Your task to perform on an android device: turn smart compose on in the gmail app Image 0: 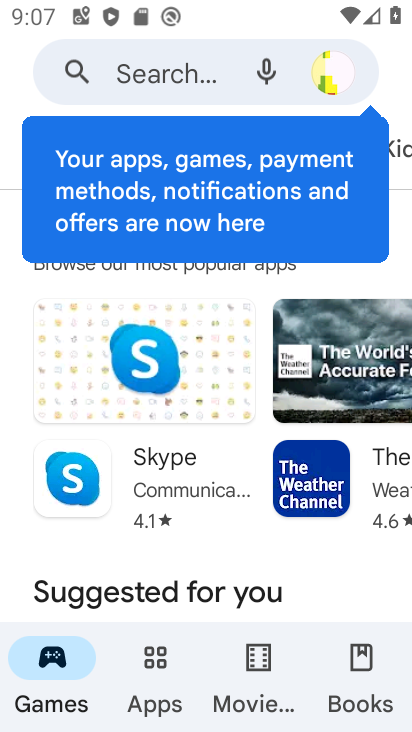
Step 0: press home button
Your task to perform on an android device: turn smart compose on in the gmail app Image 1: 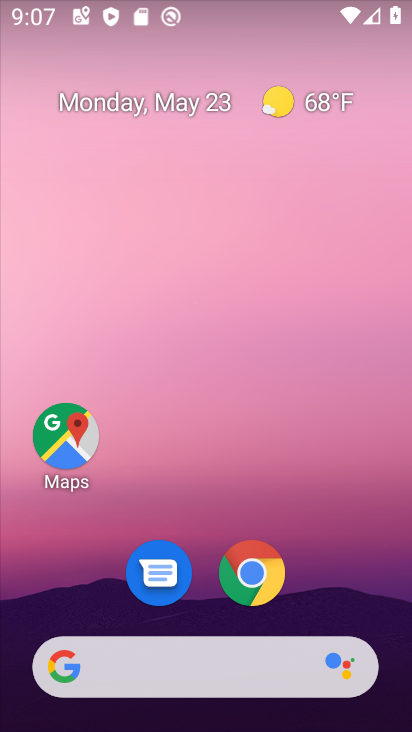
Step 1: drag from (213, 673) to (341, 136)
Your task to perform on an android device: turn smart compose on in the gmail app Image 2: 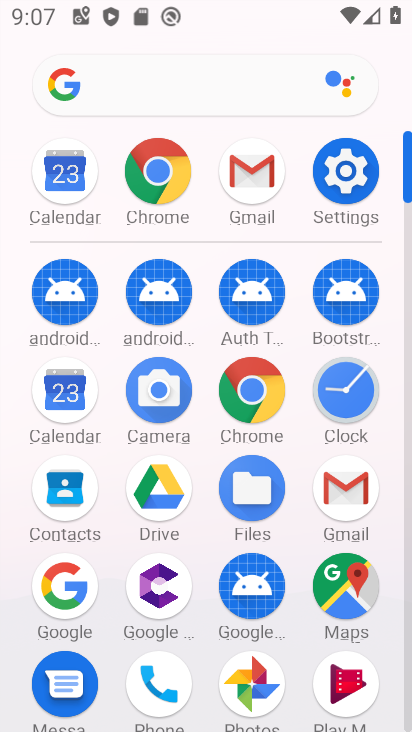
Step 2: click (347, 496)
Your task to perform on an android device: turn smart compose on in the gmail app Image 3: 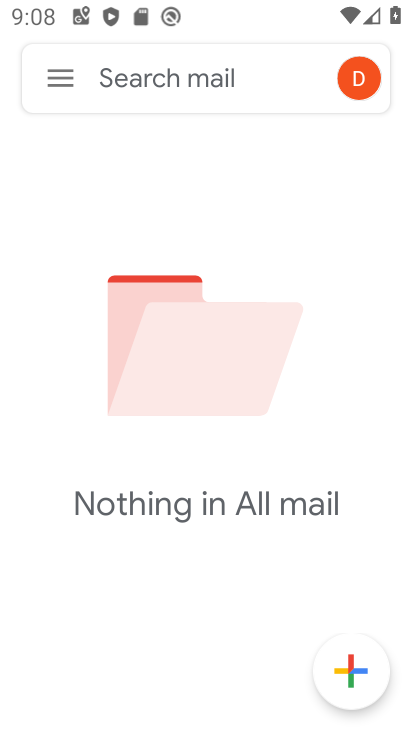
Step 3: click (54, 81)
Your task to perform on an android device: turn smart compose on in the gmail app Image 4: 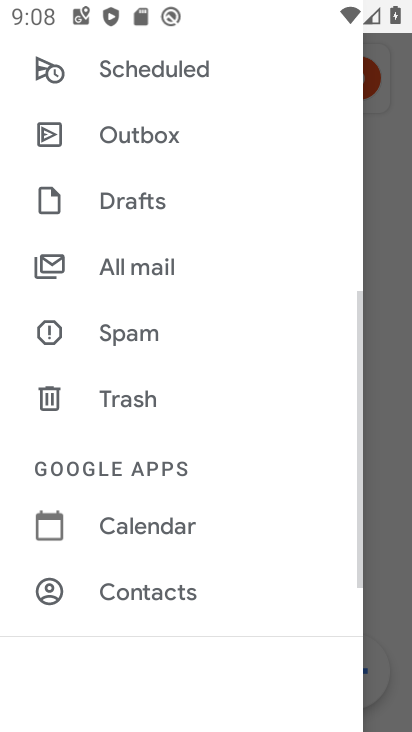
Step 4: drag from (139, 572) to (279, 78)
Your task to perform on an android device: turn smart compose on in the gmail app Image 5: 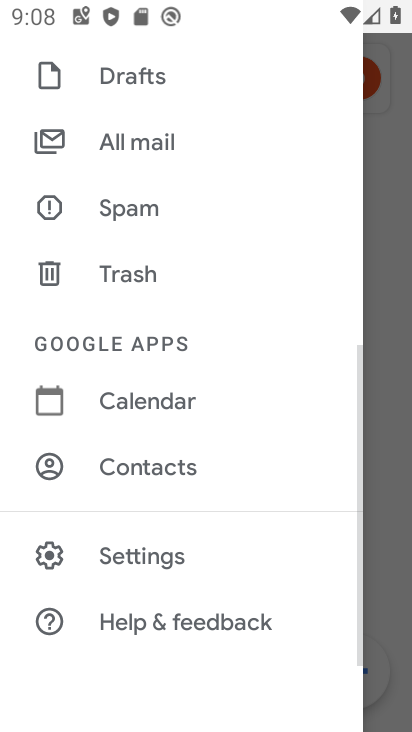
Step 5: click (146, 548)
Your task to perform on an android device: turn smart compose on in the gmail app Image 6: 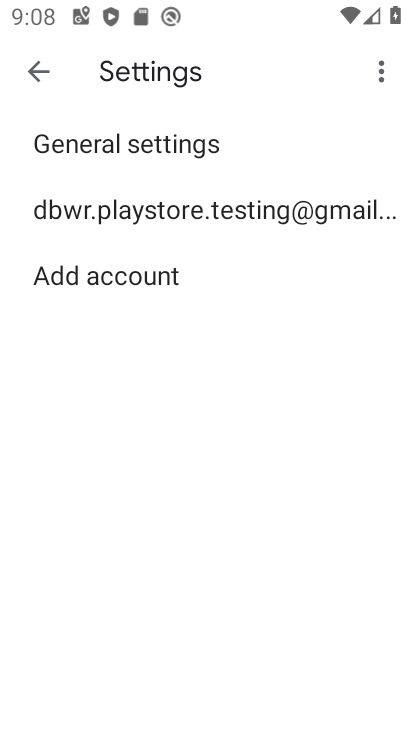
Step 6: click (186, 208)
Your task to perform on an android device: turn smart compose on in the gmail app Image 7: 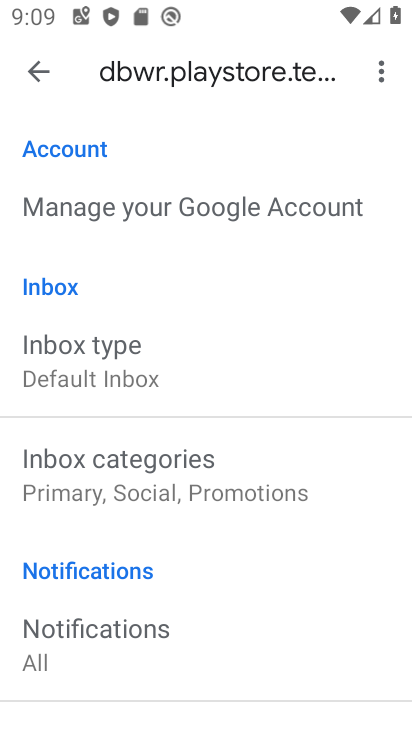
Step 7: task complete